Your task to perform on an android device: star an email in the gmail app Image 0: 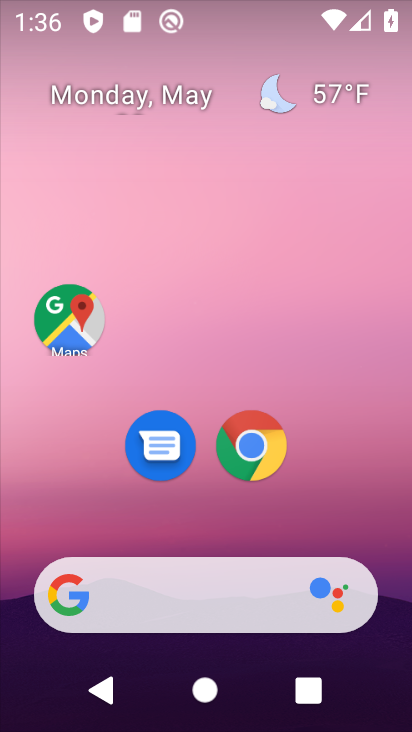
Step 0: drag from (149, 370) to (123, 72)
Your task to perform on an android device: star an email in the gmail app Image 1: 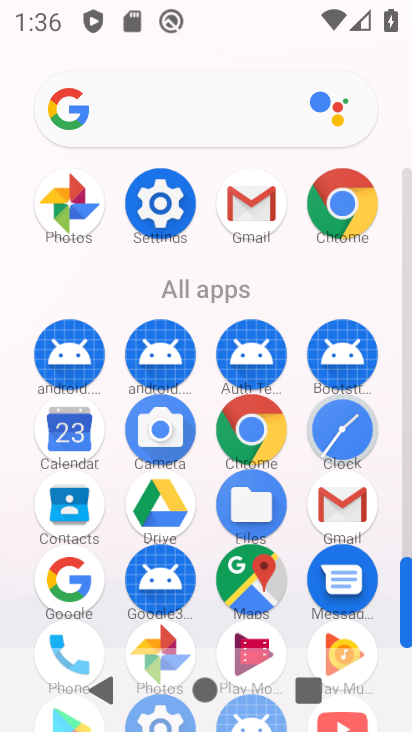
Step 1: click (253, 202)
Your task to perform on an android device: star an email in the gmail app Image 2: 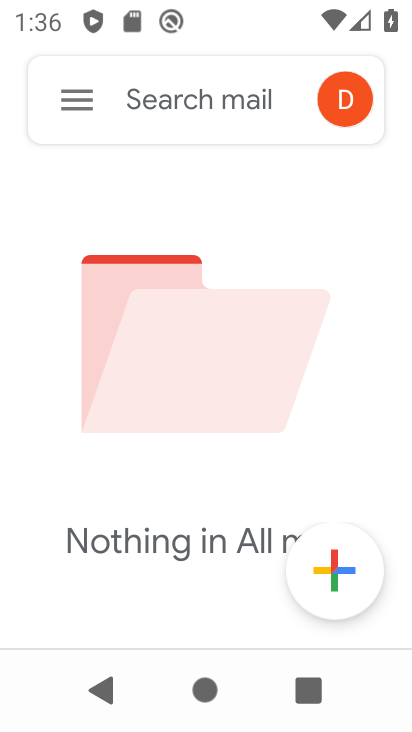
Step 2: click (75, 111)
Your task to perform on an android device: star an email in the gmail app Image 3: 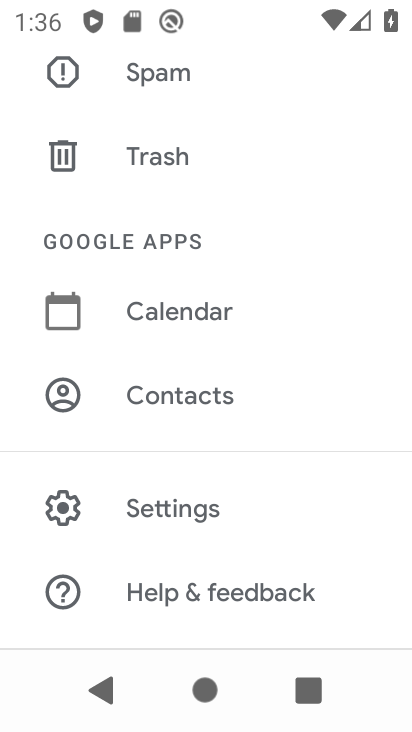
Step 3: drag from (206, 281) to (238, 543)
Your task to perform on an android device: star an email in the gmail app Image 4: 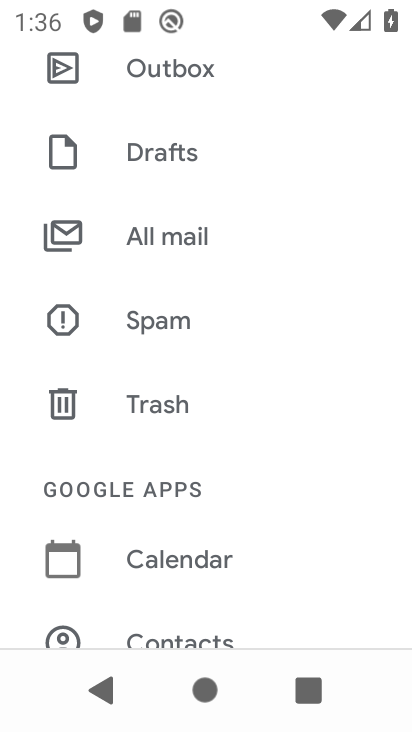
Step 4: click (143, 246)
Your task to perform on an android device: star an email in the gmail app Image 5: 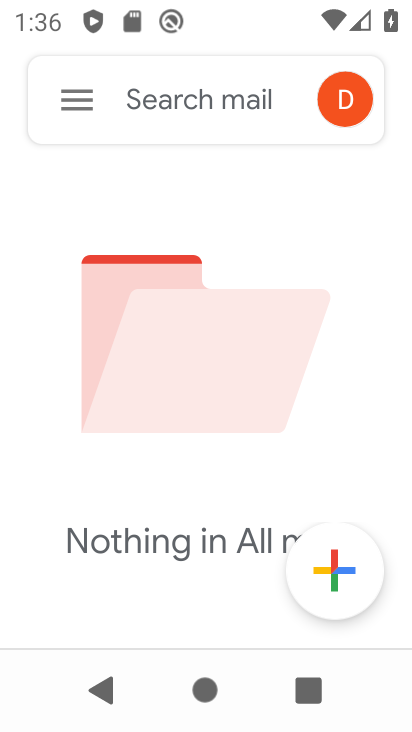
Step 5: task complete